Your task to perform on an android device: Show me the alarms in the clock app Image 0: 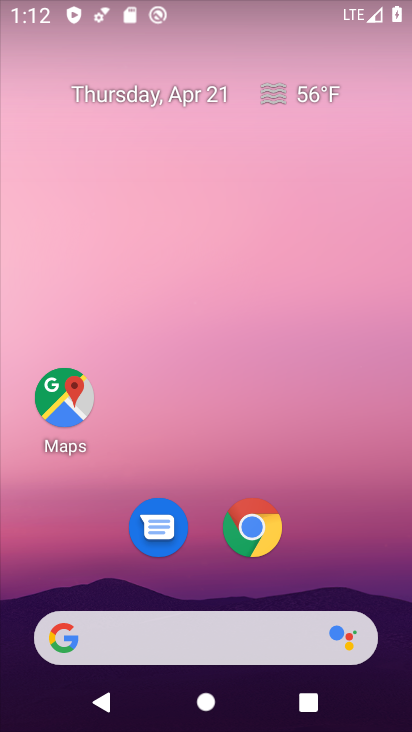
Step 0: drag from (203, 405) to (230, 140)
Your task to perform on an android device: Show me the alarms in the clock app Image 1: 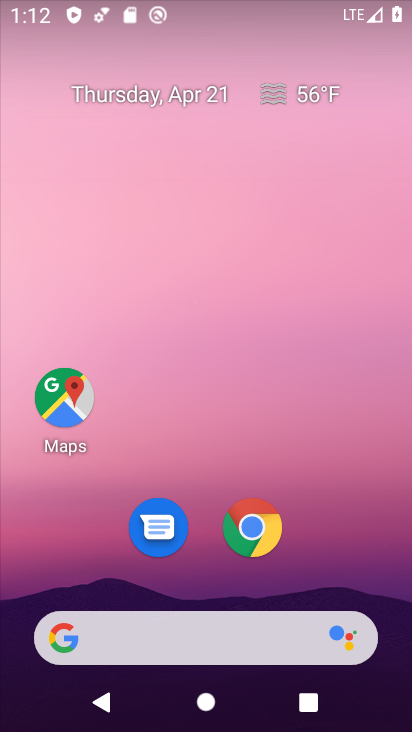
Step 1: drag from (194, 598) to (274, 206)
Your task to perform on an android device: Show me the alarms in the clock app Image 2: 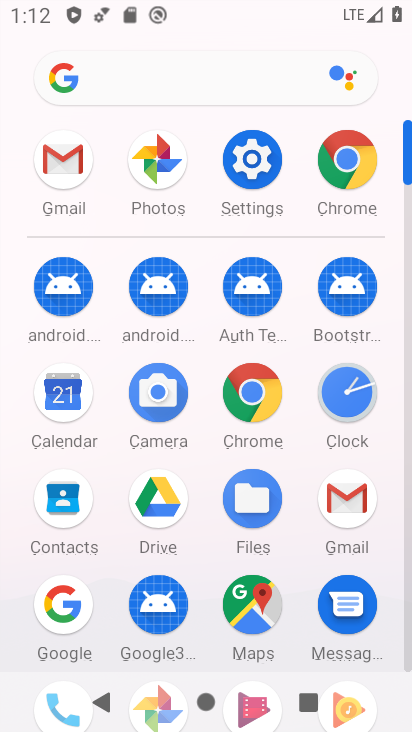
Step 2: click (351, 395)
Your task to perform on an android device: Show me the alarms in the clock app Image 3: 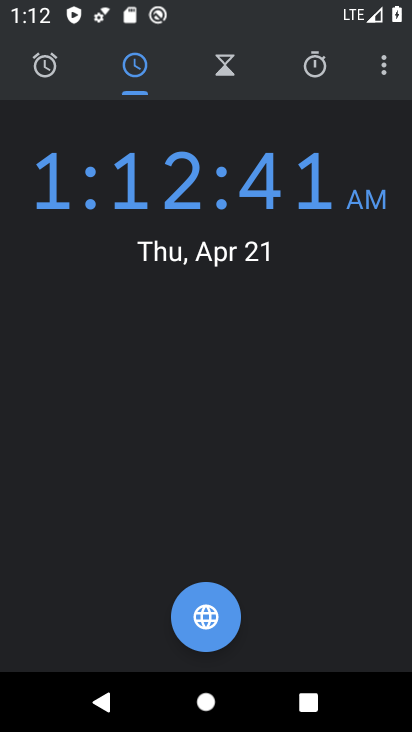
Step 3: click (50, 85)
Your task to perform on an android device: Show me the alarms in the clock app Image 4: 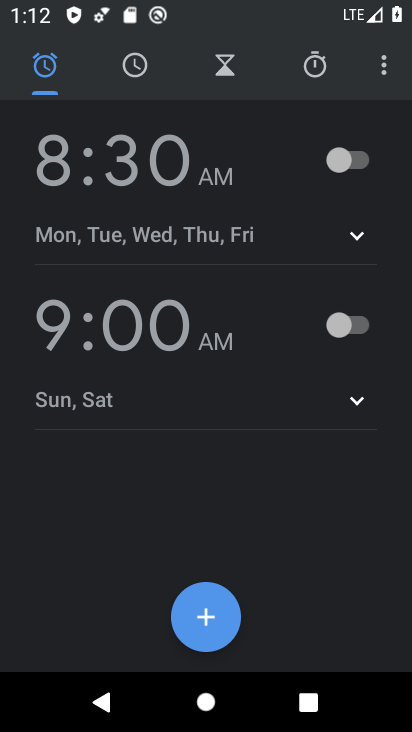
Step 4: task complete